Your task to perform on an android device: Clear the cart on ebay.com. Image 0: 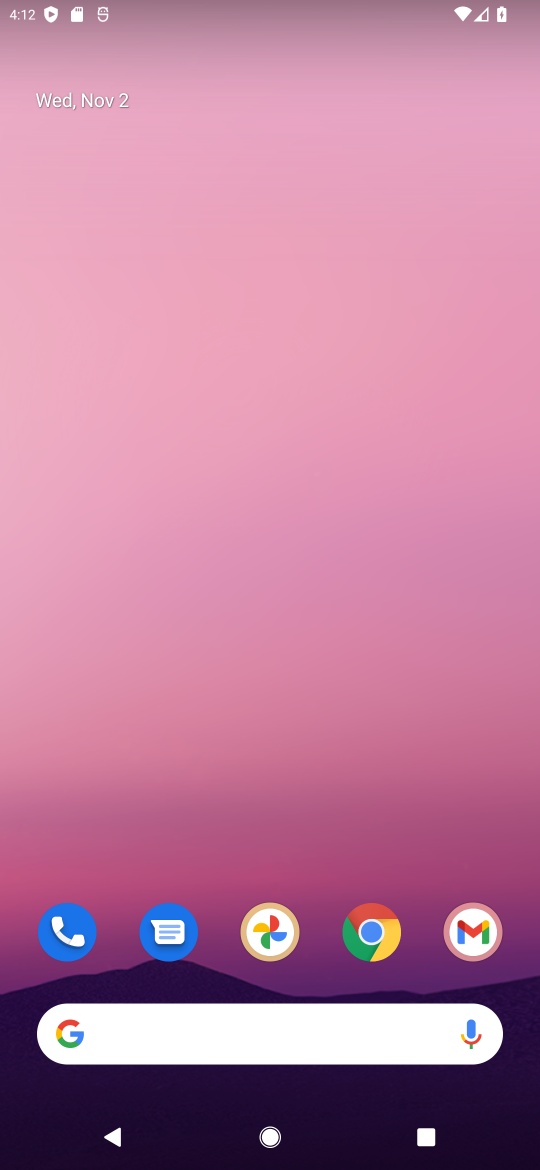
Step 0: click (372, 947)
Your task to perform on an android device: Clear the cart on ebay.com. Image 1: 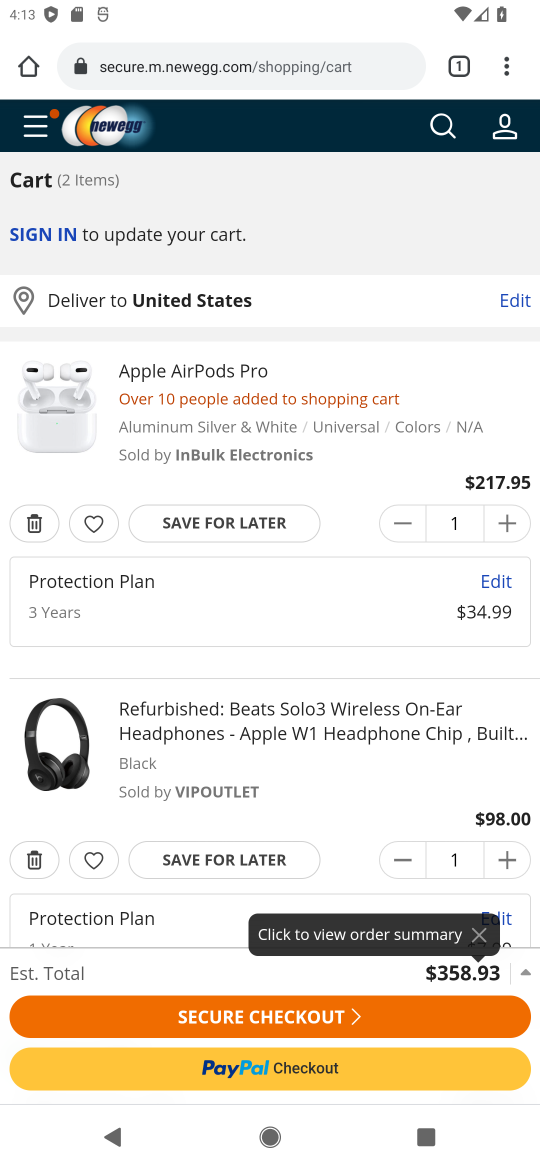
Step 1: click (205, 59)
Your task to perform on an android device: Clear the cart on ebay.com. Image 2: 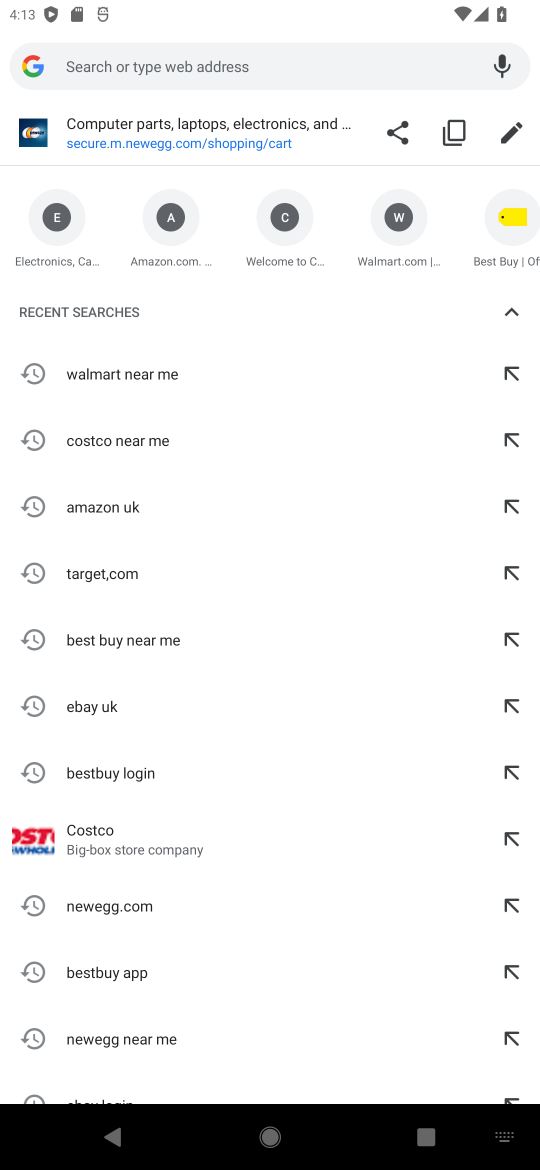
Step 2: type "ebay.com"
Your task to perform on an android device: Clear the cart on ebay.com. Image 3: 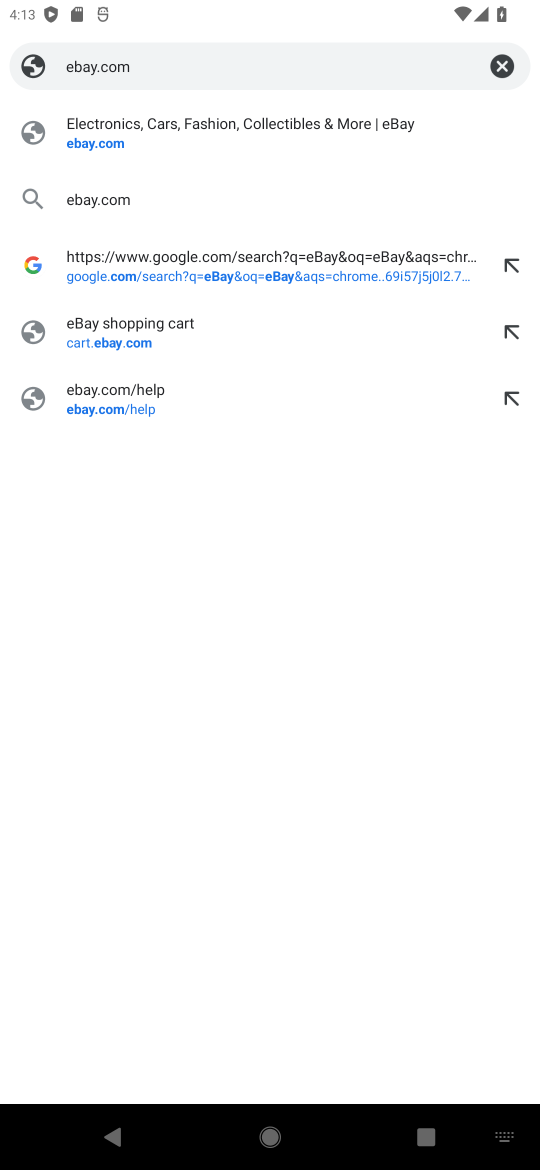
Step 3: press enter
Your task to perform on an android device: Clear the cart on ebay.com. Image 4: 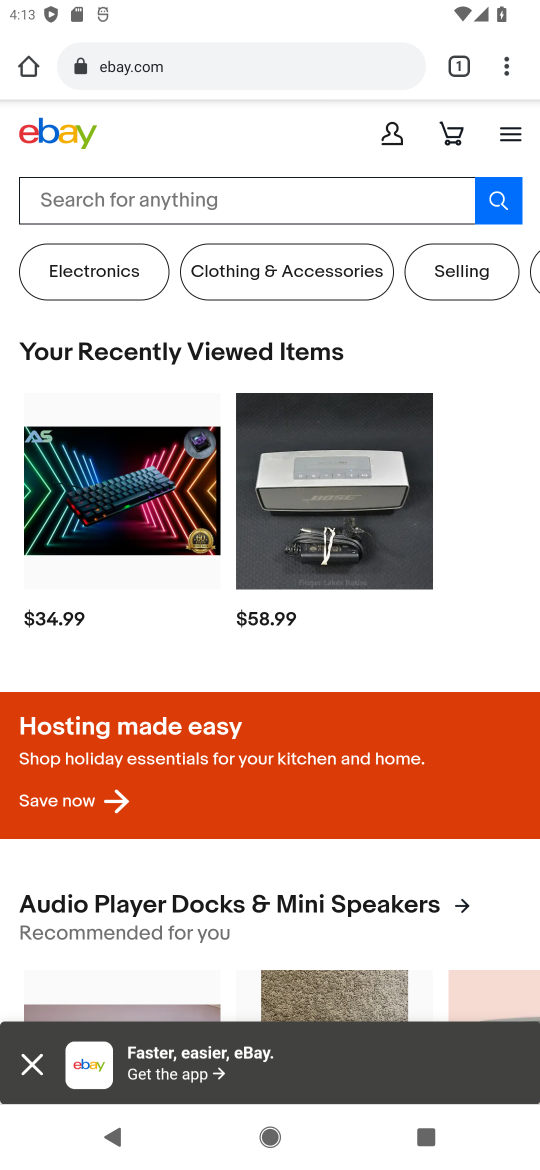
Step 4: click (454, 141)
Your task to perform on an android device: Clear the cart on ebay.com. Image 5: 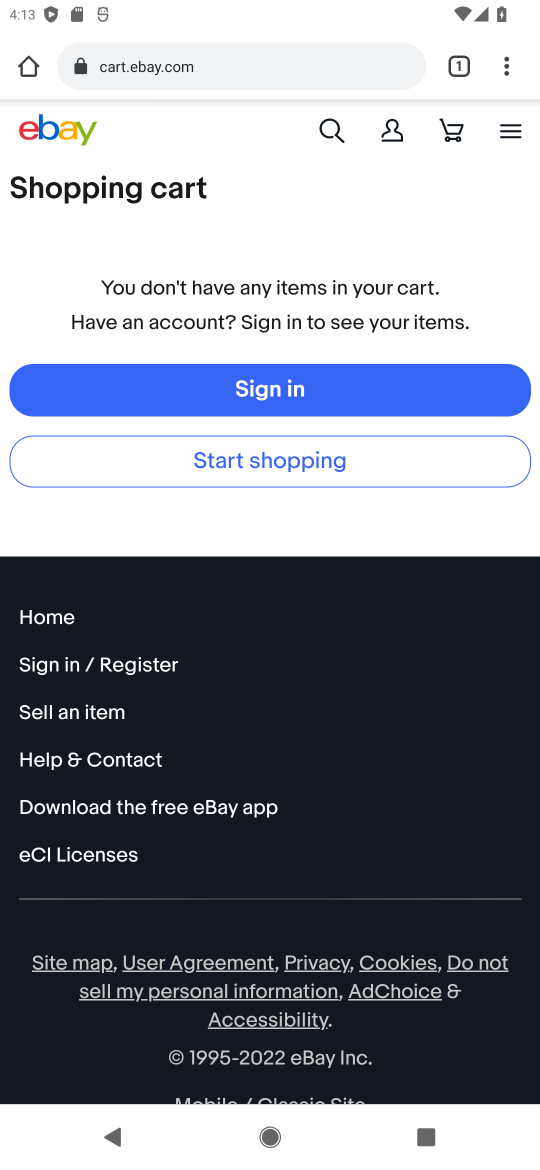
Step 5: task complete